Your task to perform on an android device: Show me recent news Image 0: 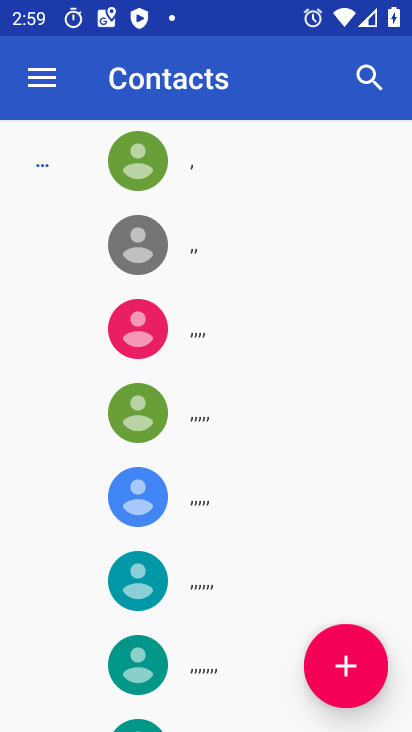
Step 0: press home button
Your task to perform on an android device: Show me recent news Image 1: 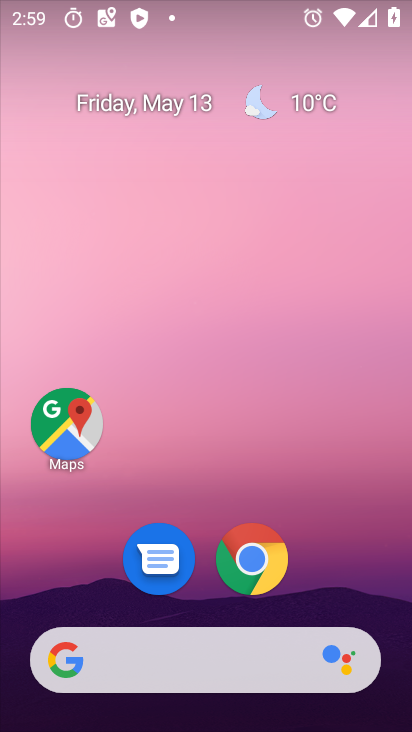
Step 1: drag from (219, 607) to (224, 291)
Your task to perform on an android device: Show me recent news Image 2: 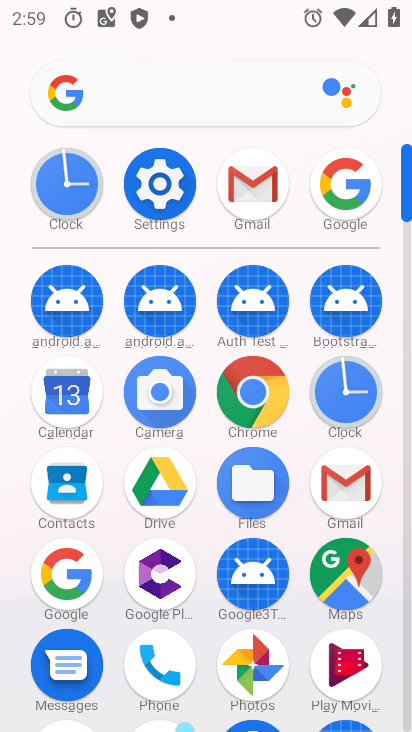
Step 2: click (202, 528)
Your task to perform on an android device: Show me recent news Image 3: 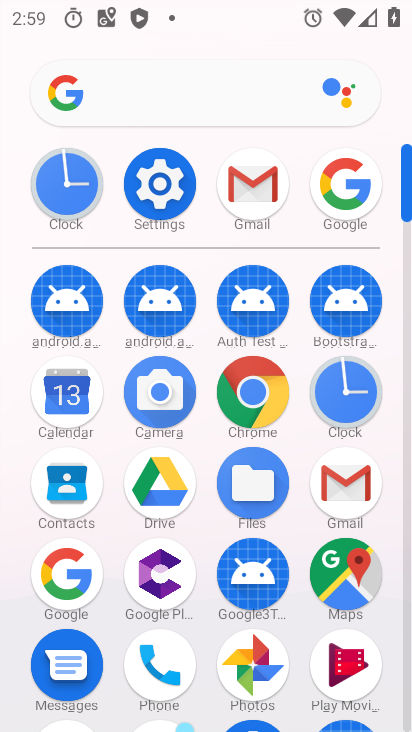
Step 3: click (327, 177)
Your task to perform on an android device: Show me recent news Image 4: 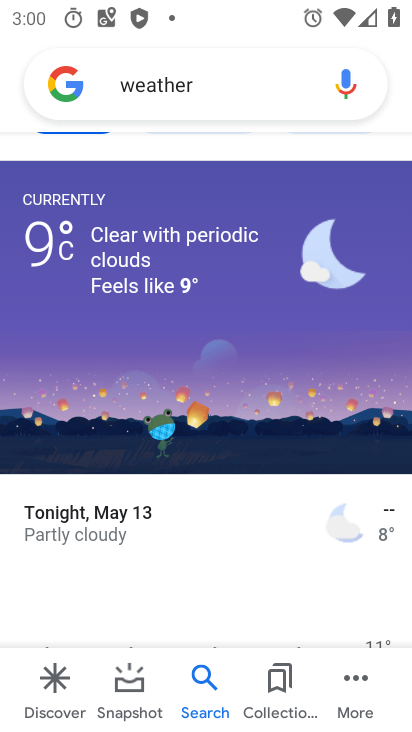
Step 4: drag from (230, 552) to (218, 321)
Your task to perform on an android device: Show me recent news Image 5: 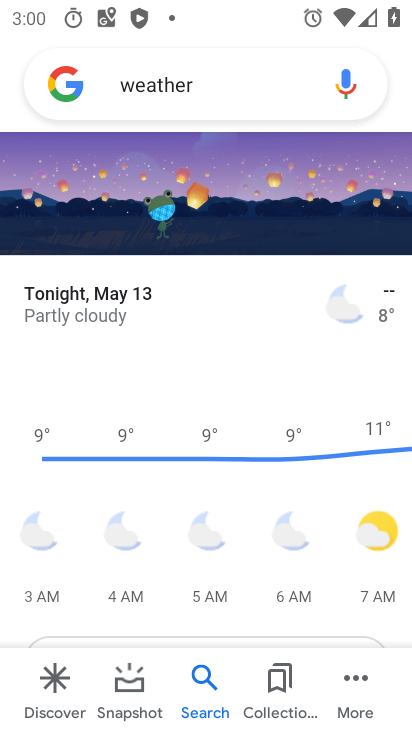
Step 5: drag from (216, 320) to (233, 471)
Your task to perform on an android device: Show me recent news Image 6: 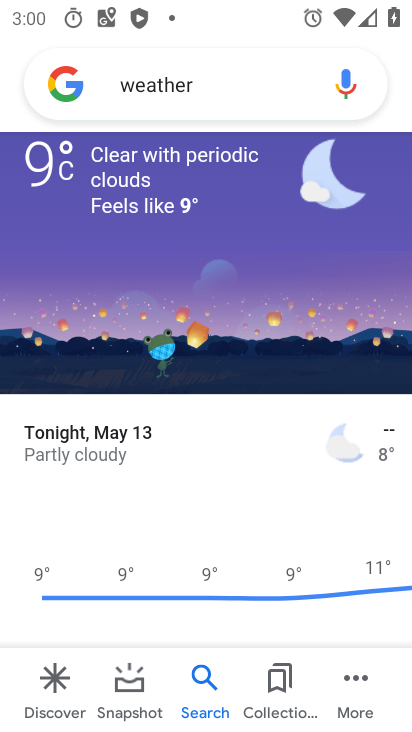
Step 6: click (266, 76)
Your task to perform on an android device: Show me recent news Image 7: 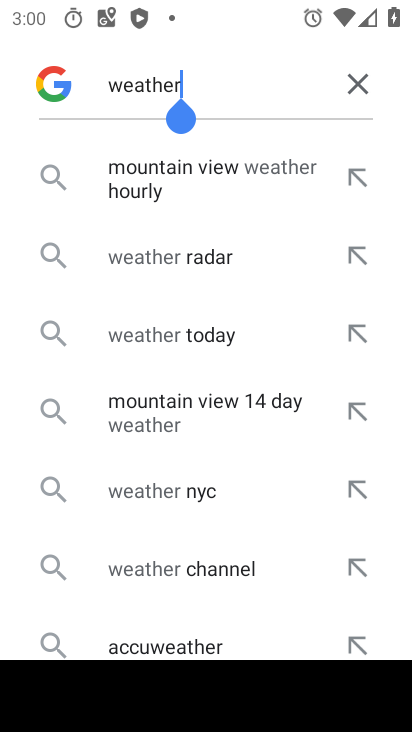
Step 7: click (354, 83)
Your task to perform on an android device: Show me recent news Image 8: 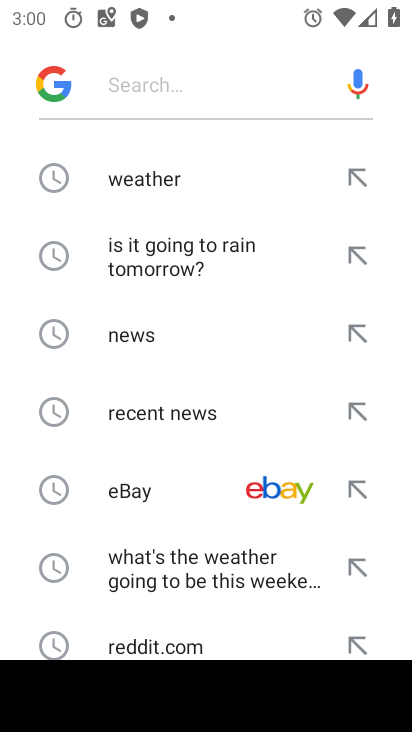
Step 8: click (165, 98)
Your task to perform on an android device: Show me recent news Image 9: 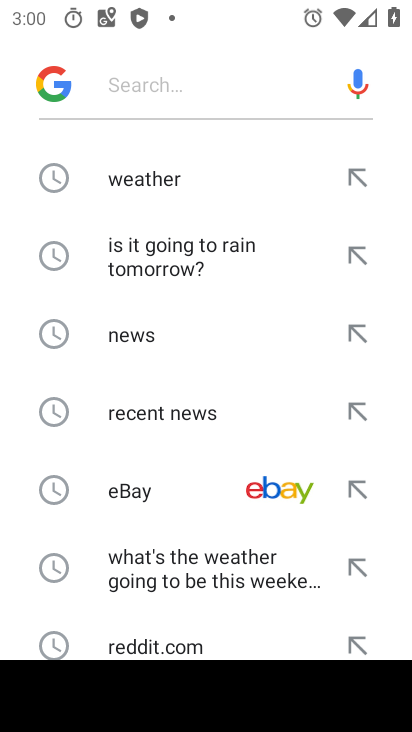
Step 9: click (189, 422)
Your task to perform on an android device: Show me recent news Image 10: 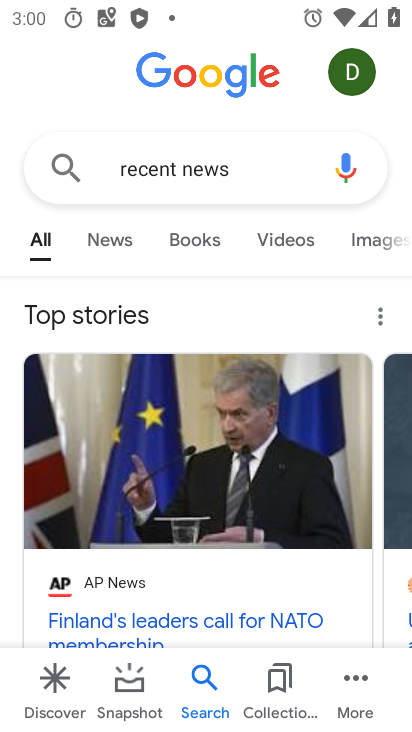
Step 10: click (112, 241)
Your task to perform on an android device: Show me recent news Image 11: 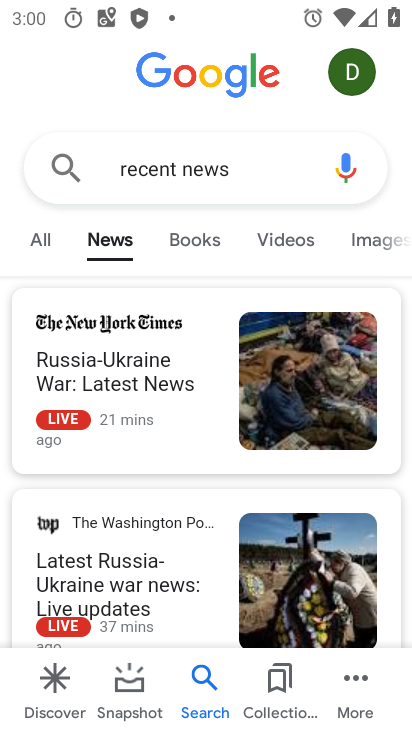
Step 11: task complete